Your task to perform on an android device: turn off javascript in the chrome app Image 0: 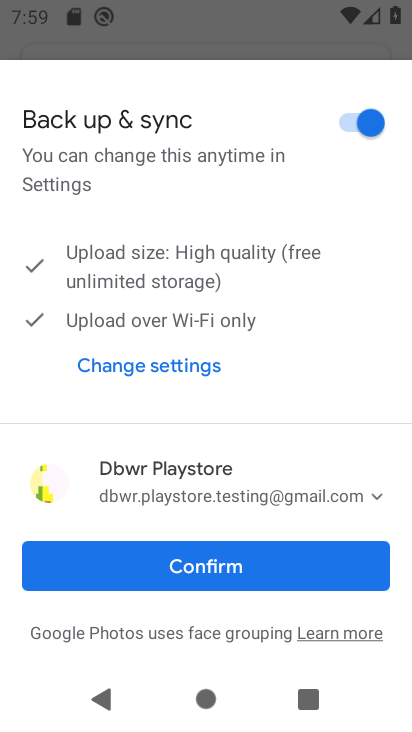
Step 0: press home button
Your task to perform on an android device: turn off javascript in the chrome app Image 1: 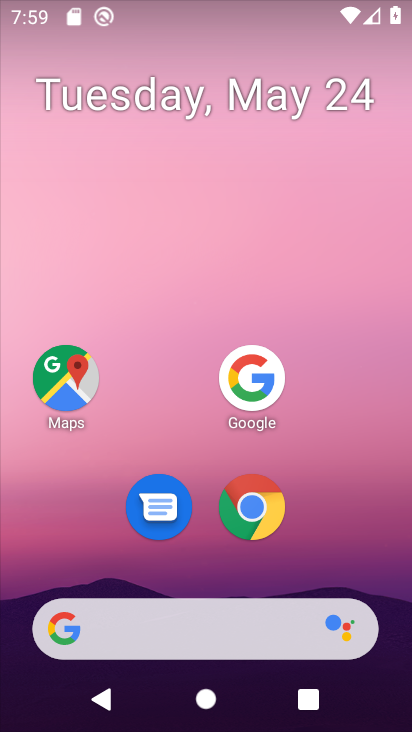
Step 1: click (241, 518)
Your task to perform on an android device: turn off javascript in the chrome app Image 2: 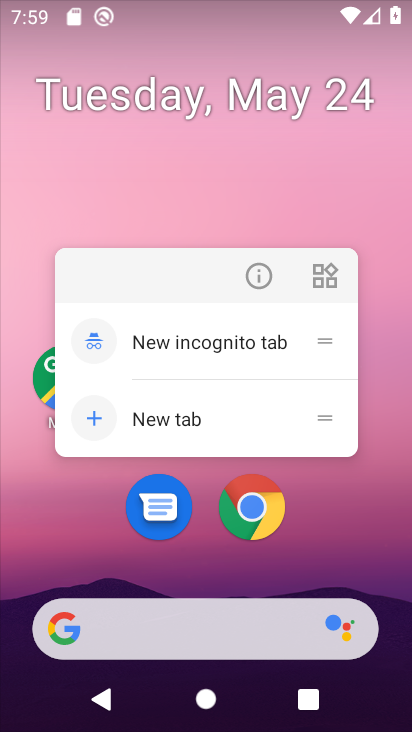
Step 2: click (256, 510)
Your task to perform on an android device: turn off javascript in the chrome app Image 3: 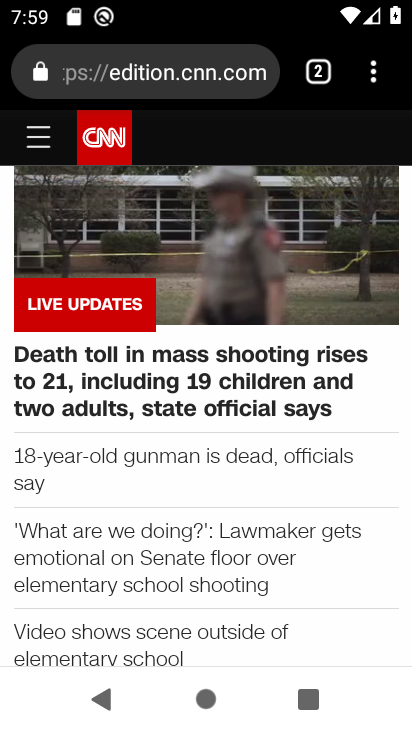
Step 3: drag from (375, 79) to (207, 502)
Your task to perform on an android device: turn off javascript in the chrome app Image 4: 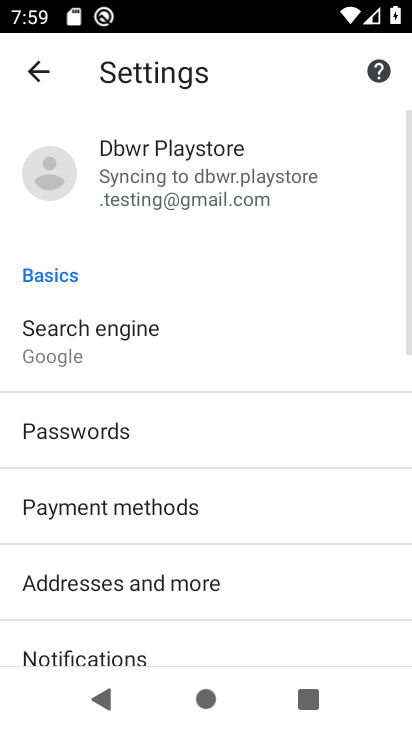
Step 4: drag from (156, 628) to (296, 229)
Your task to perform on an android device: turn off javascript in the chrome app Image 5: 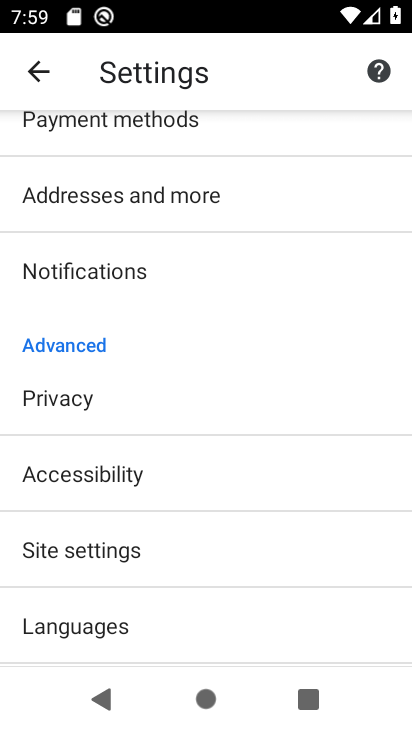
Step 5: click (118, 549)
Your task to perform on an android device: turn off javascript in the chrome app Image 6: 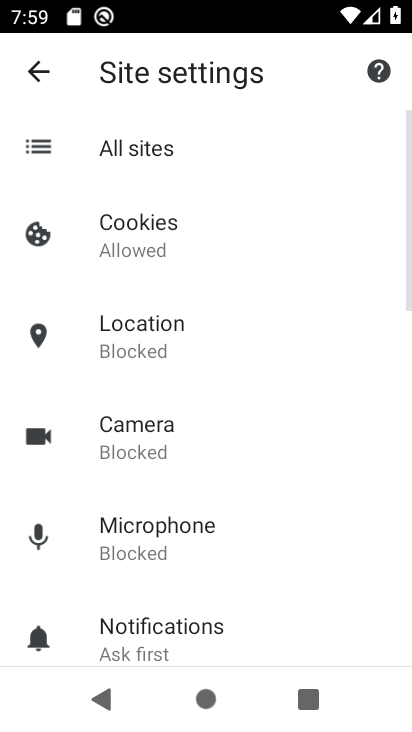
Step 6: drag from (223, 579) to (304, 251)
Your task to perform on an android device: turn off javascript in the chrome app Image 7: 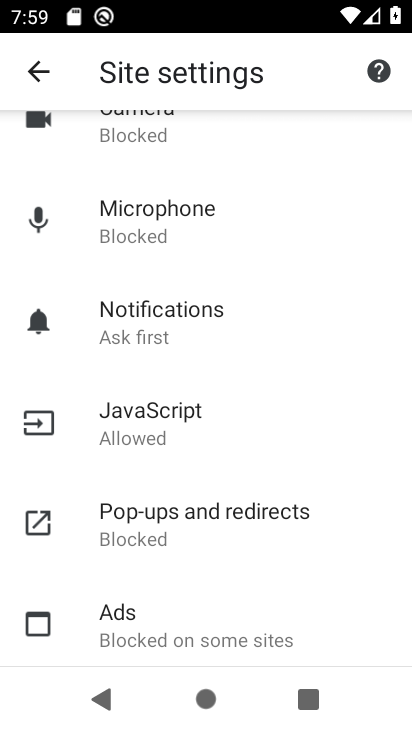
Step 7: click (160, 411)
Your task to perform on an android device: turn off javascript in the chrome app Image 8: 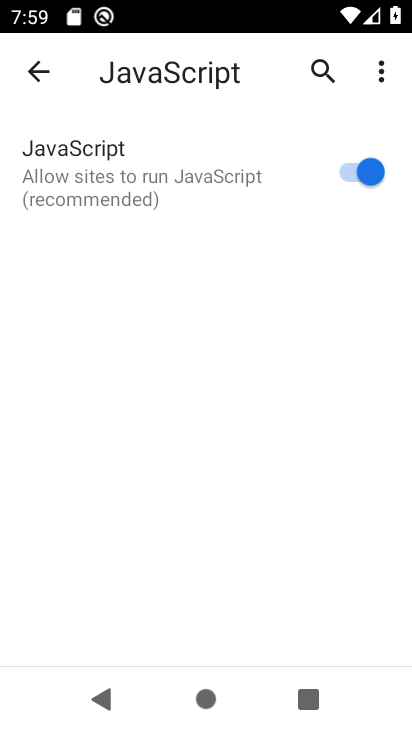
Step 8: click (350, 168)
Your task to perform on an android device: turn off javascript in the chrome app Image 9: 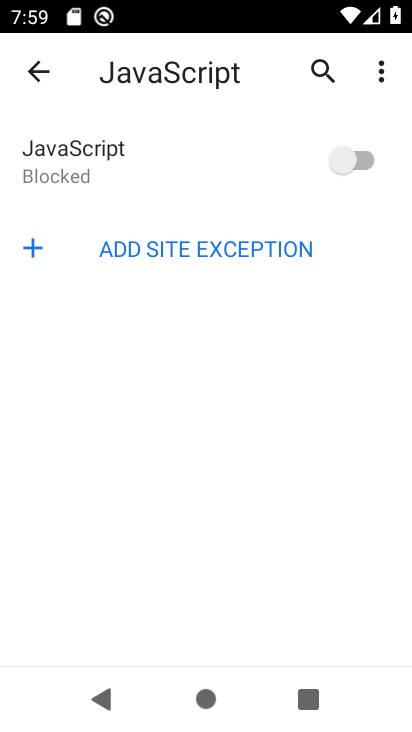
Step 9: task complete